Your task to perform on an android device: Play the last video I watched on Youtube Image 0: 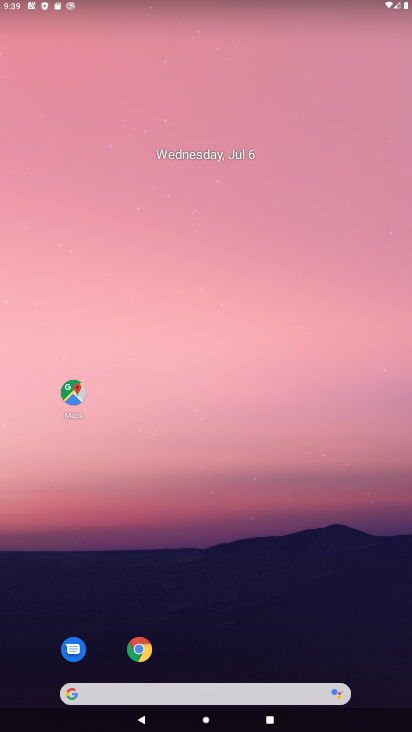
Step 0: drag from (244, 640) to (246, 106)
Your task to perform on an android device: Play the last video I watched on Youtube Image 1: 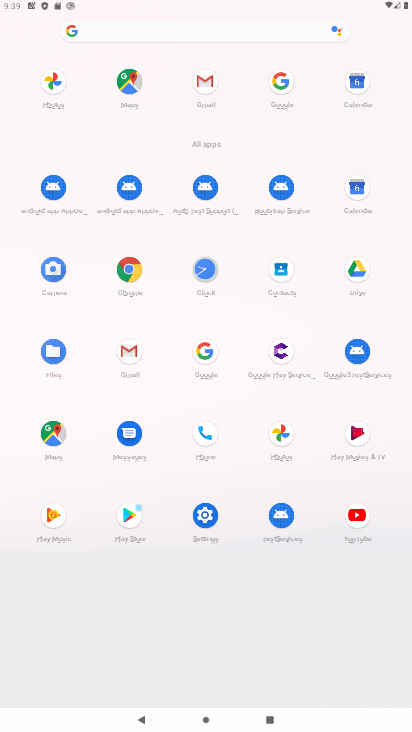
Step 1: click (356, 515)
Your task to perform on an android device: Play the last video I watched on Youtube Image 2: 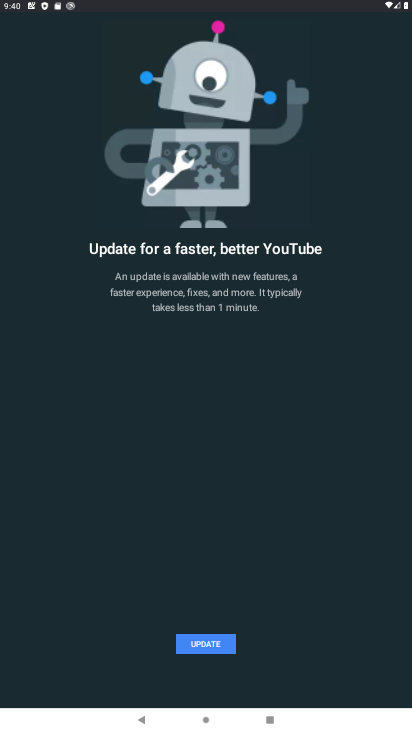
Step 2: click (209, 645)
Your task to perform on an android device: Play the last video I watched on Youtube Image 3: 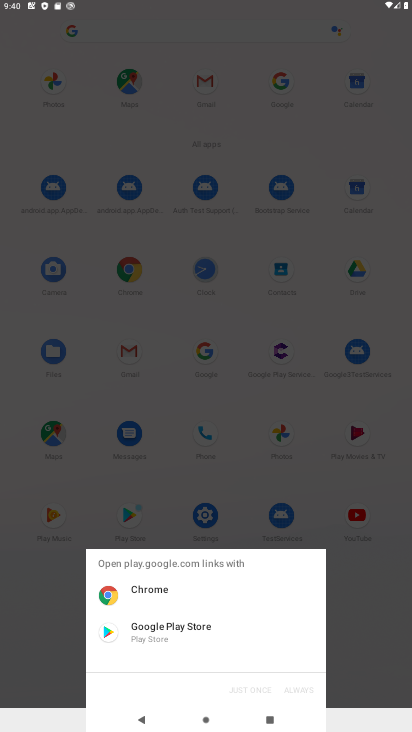
Step 3: click (182, 623)
Your task to perform on an android device: Play the last video I watched on Youtube Image 4: 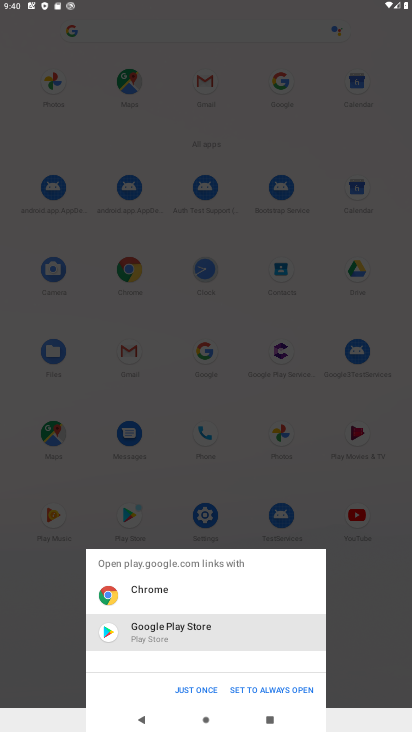
Step 4: click (197, 690)
Your task to perform on an android device: Play the last video I watched on Youtube Image 5: 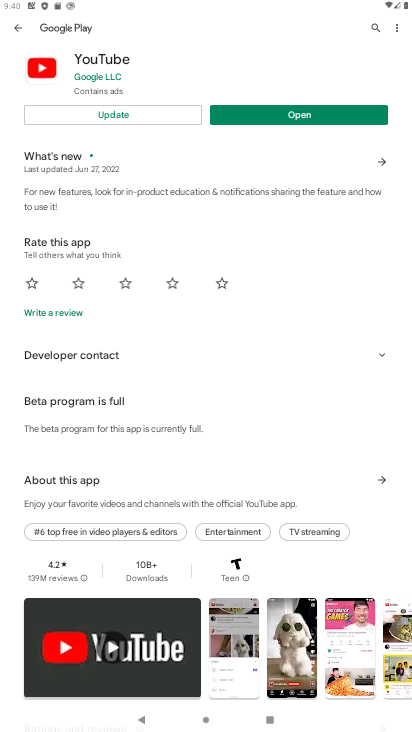
Step 5: click (155, 112)
Your task to perform on an android device: Play the last video I watched on Youtube Image 6: 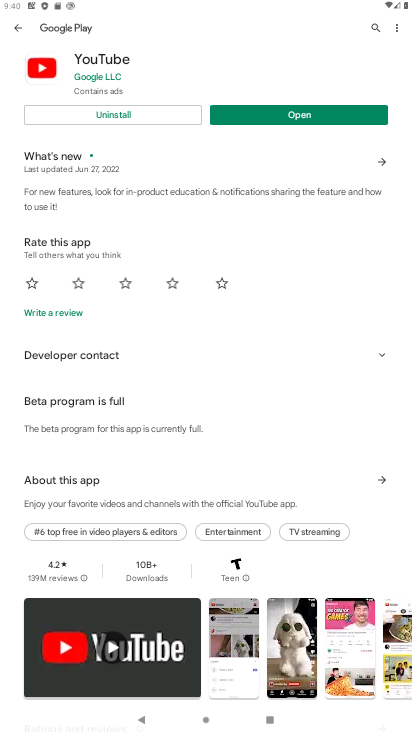
Step 6: click (291, 117)
Your task to perform on an android device: Play the last video I watched on Youtube Image 7: 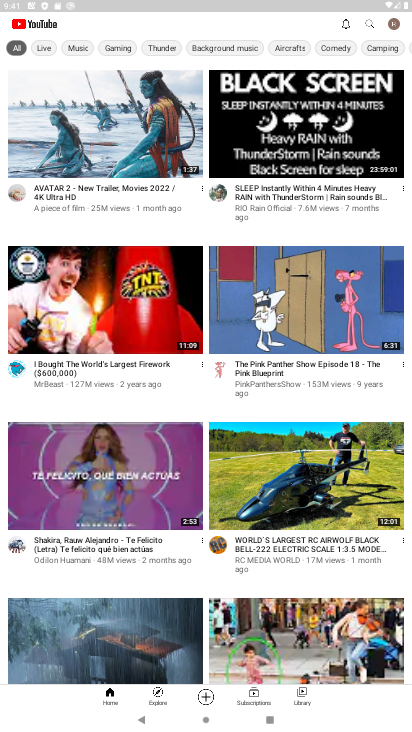
Step 7: click (306, 693)
Your task to perform on an android device: Play the last video I watched on Youtube Image 8: 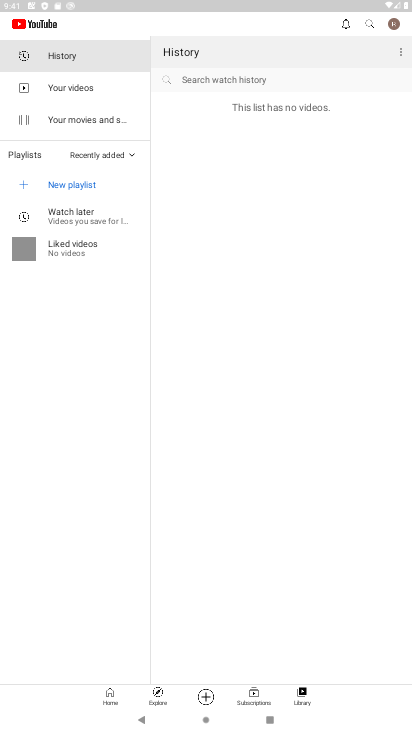
Step 8: click (69, 51)
Your task to perform on an android device: Play the last video I watched on Youtube Image 9: 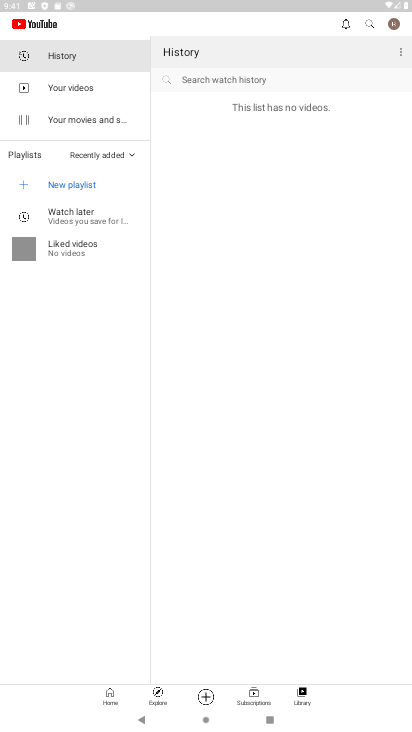
Step 9: click (70, 85)
Your task to perform on an android device: Play the last video I watched on Youtube Image 10: 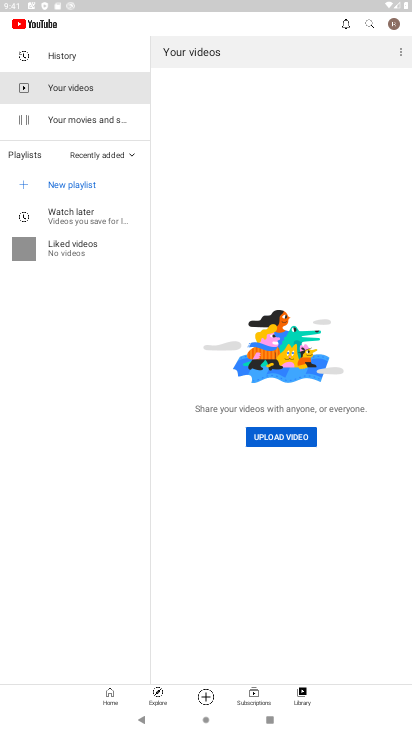
Step 10: task complete